Your task to perform on an android device: Check the news Image 0: 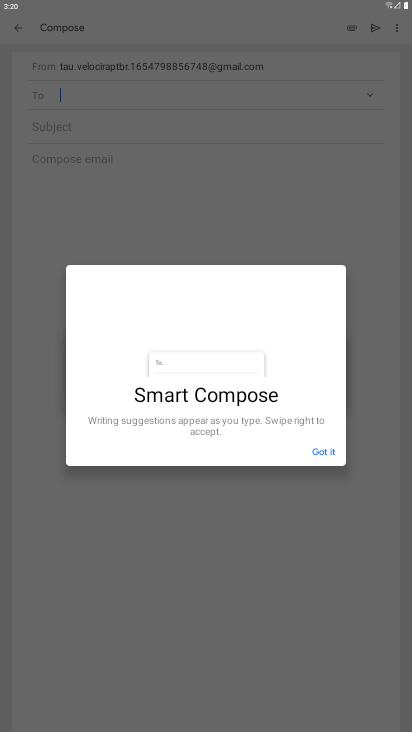
Step 0: press home button
Your task to perform on an android device: Check the news Image 1: 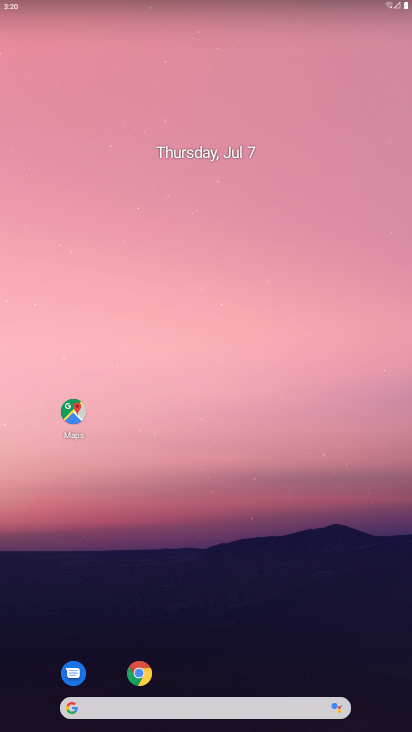
Step 1: click (156, 706)
Your task to perform on an android device: Check the news Image 2: 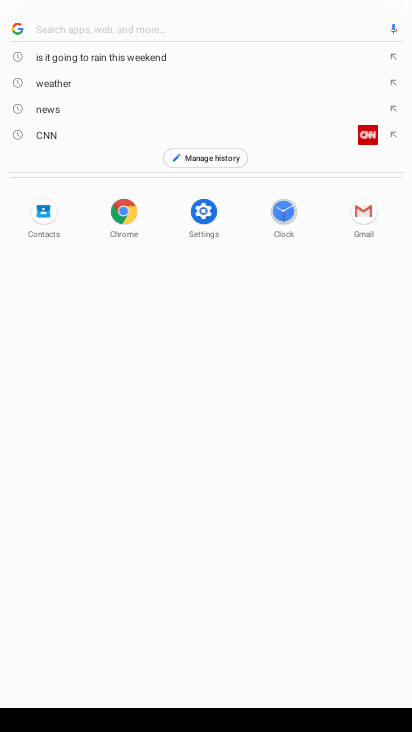
Step 2: click (41, 113)
Your task to perform on an android device: Check the news Image 3: 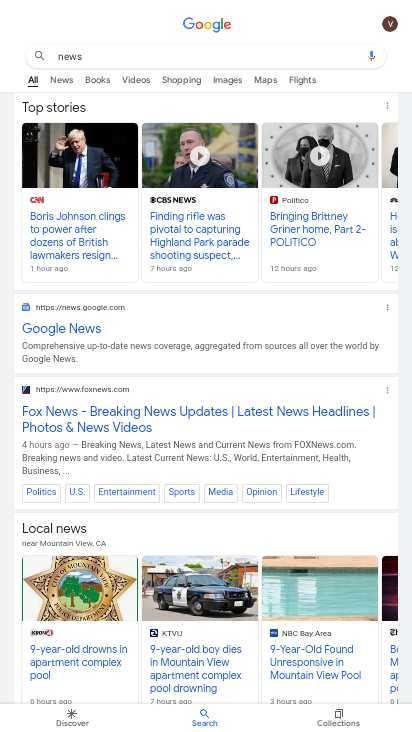
Step 3: task complete